Your task to perform on an android device: allow cookies in the chrome app Image 0: 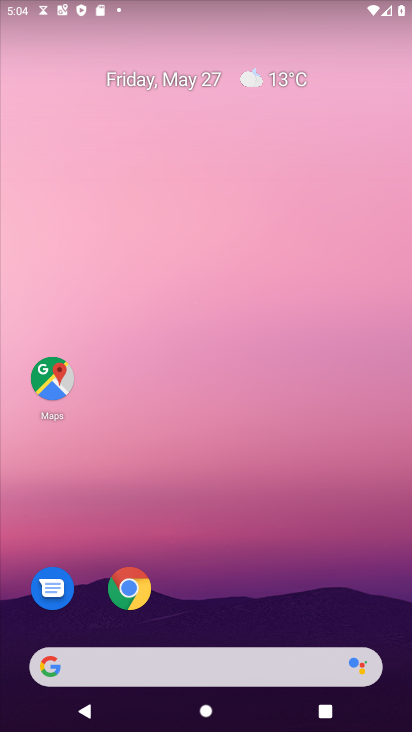
Step 0: click (126, 589)
Your task to perform on an android device: allow cookies in the chrome app Image 1: 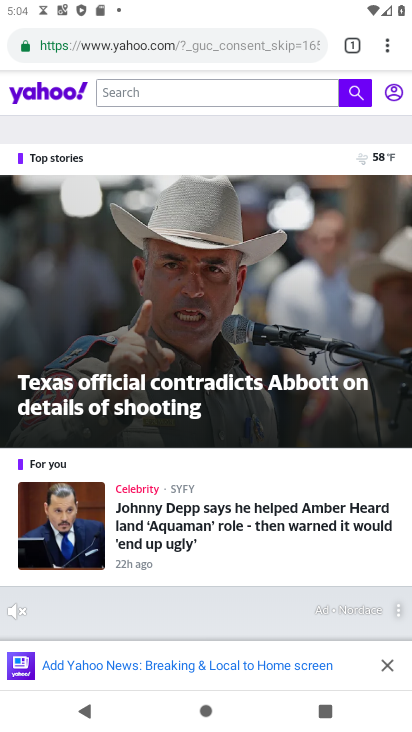
Step 1: drag from (387, 40) to (227, 541)
Your task to perform on an android device: allow cookies in the chrome app Image 2: 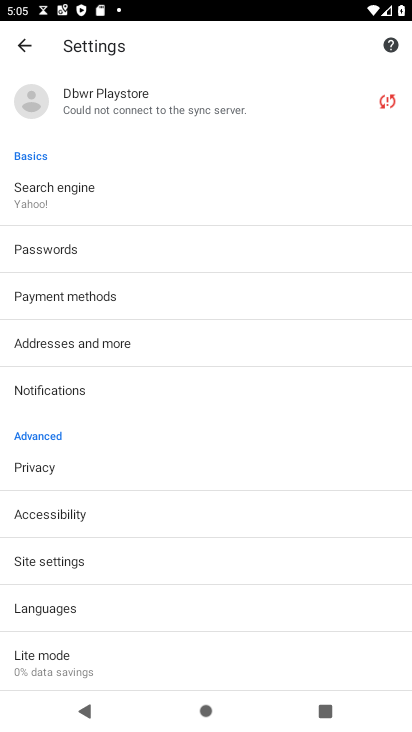
Step 2: click (57, 557)
Your task to perform on an android device: allow cookies in the chrome app Image 3: 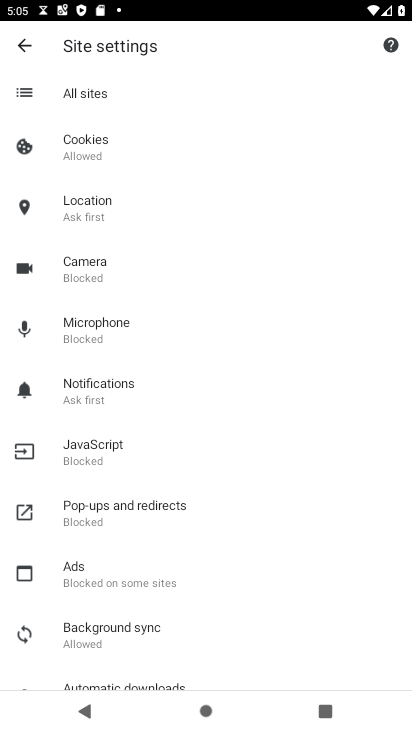
Step 3: click (108, 135)
Your task to perform on an android device: allow cookies in the chrome app Image 4: 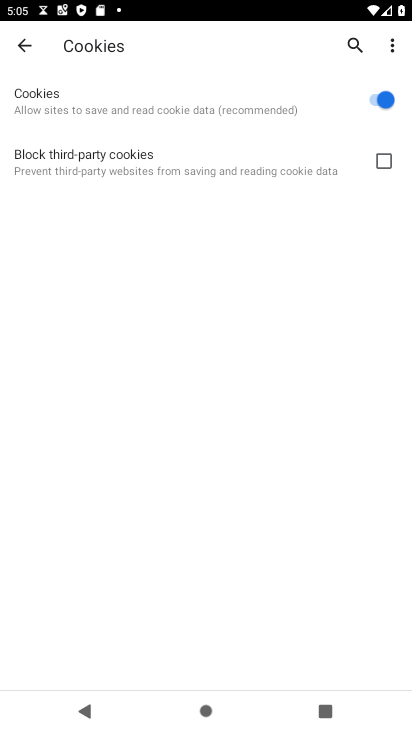
Step 4: task complete